Your task to perform on an android device: Open the calendar and show me this week's events Image 0: 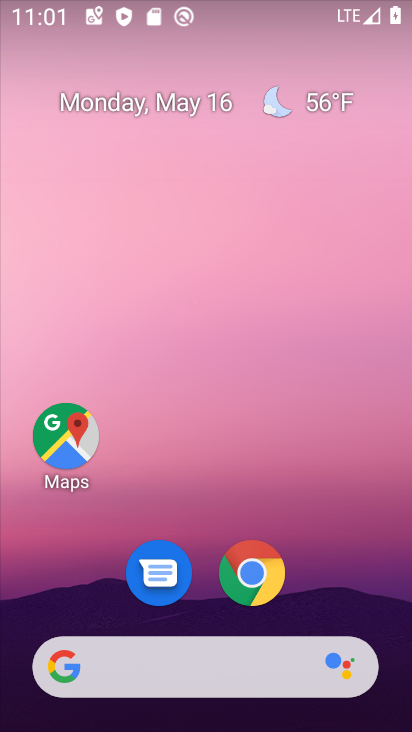
Step 0: drag from (152, 676) to (258, 34)
Your task to perform on an android device: Open the calendar and show me this week's events Image 1: 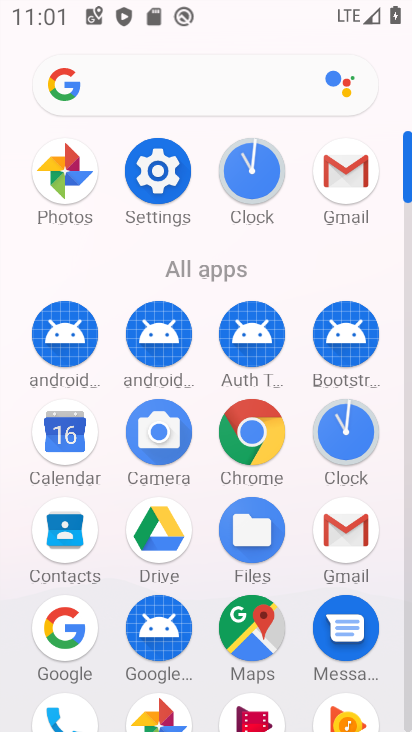
Step 1: click (68, 442)
Your task to perform on an android device: Open the calendar and show me this week's events Image 2: 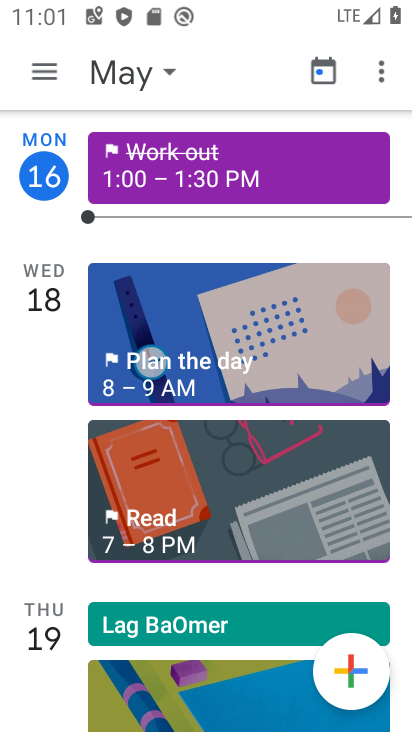
Step 2: task complete